Your task to perform on an android device: open sync settings in chrome Image 0: 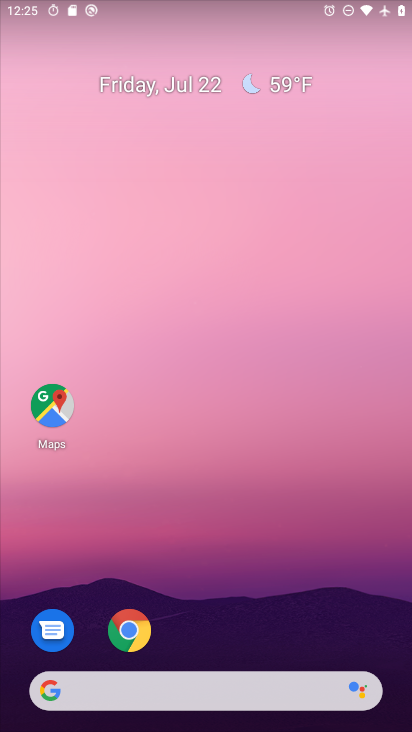
Step 0: press home button
Your task to perform on an android device: open sync settings in chrome Image 1: 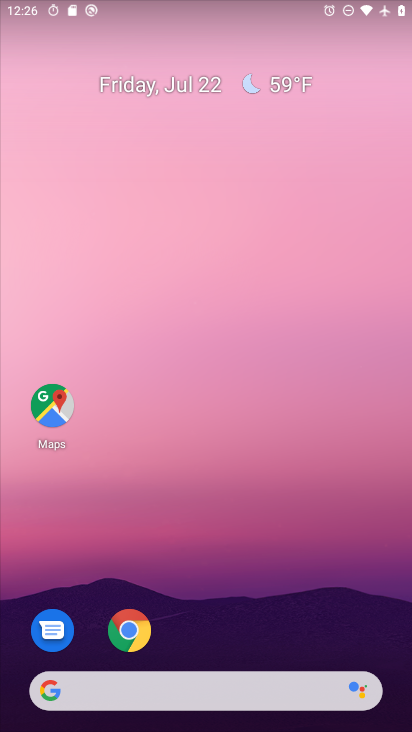
Step 1: drag from (191, 639) to (205, 161)
Your task to perform on an android device: open sync settings in chrome Image 2: 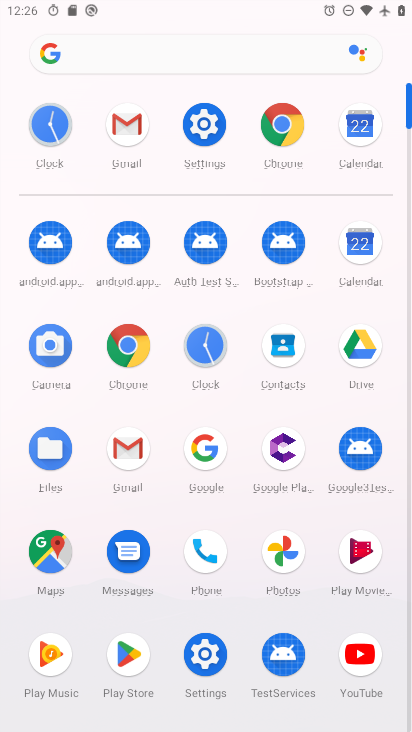
Step 2: click (281, 129)
Your task to perform on an android device: open sync settings in chrome Image 3: 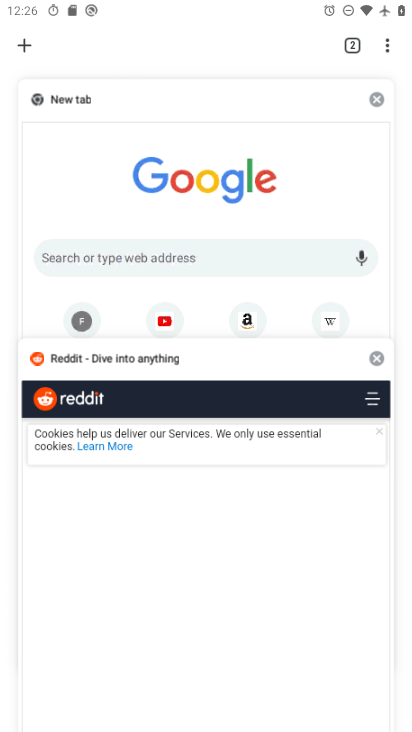
Step 3: drag from (382, 48) to (233, 180)
Your task to perform on an android device: open sync settings in chrome Image 4: 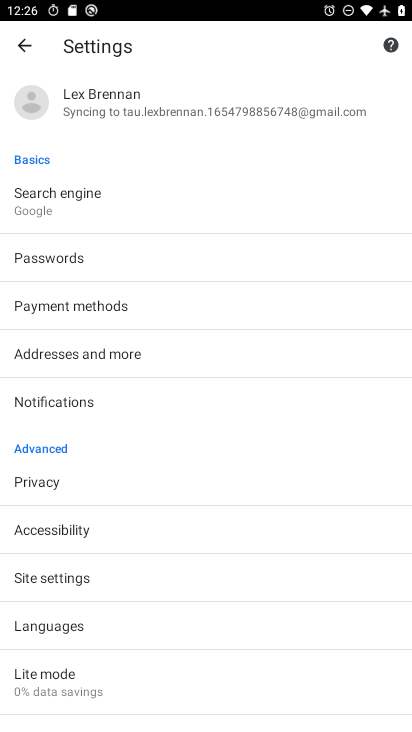
Step 4: click (166, 117)
Your task to perform on an android device: open sync settings in chrome Image 5: 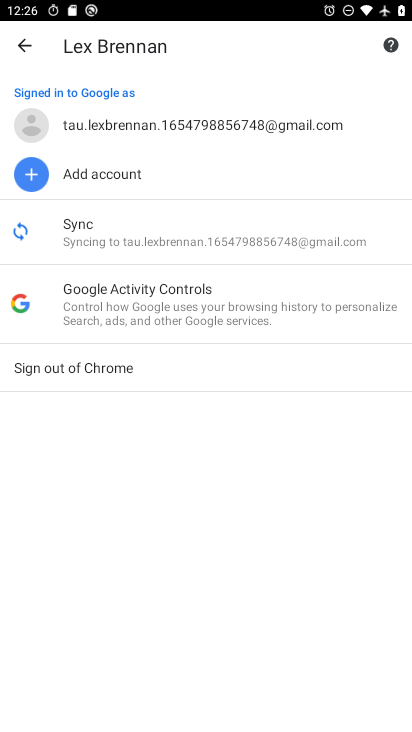
Step 5: click (88, 235)
Your task to perform on an android device: open sync settings in chrome Image 6: 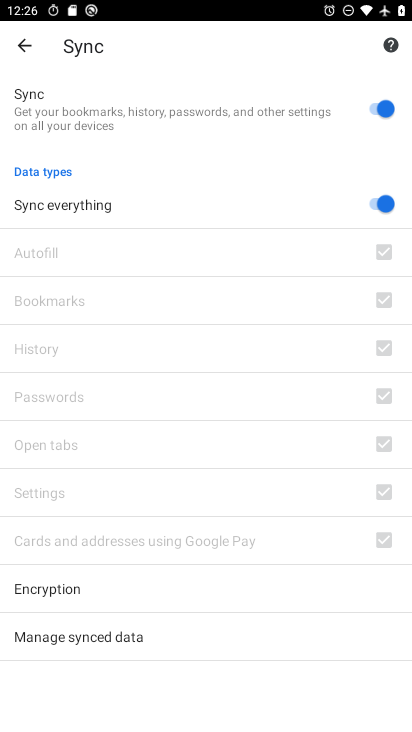
Step 6: task complete